Your task to perform on an android device: Open Chrome and go to the settings page Image 0: 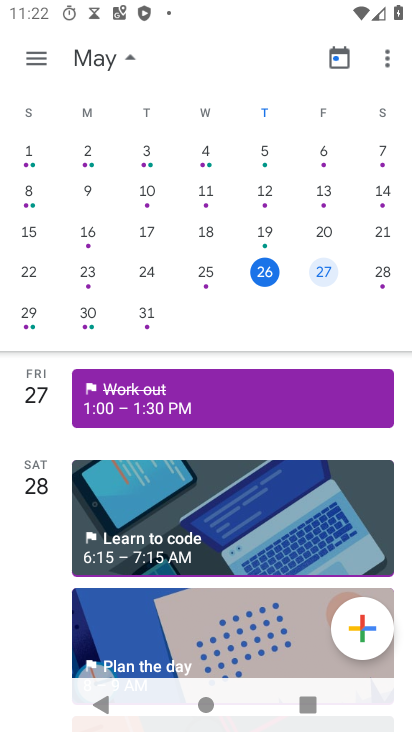
Step 0: press home button
Your task to perform on an android device: Open Chrome and go to the settings page Image 1: 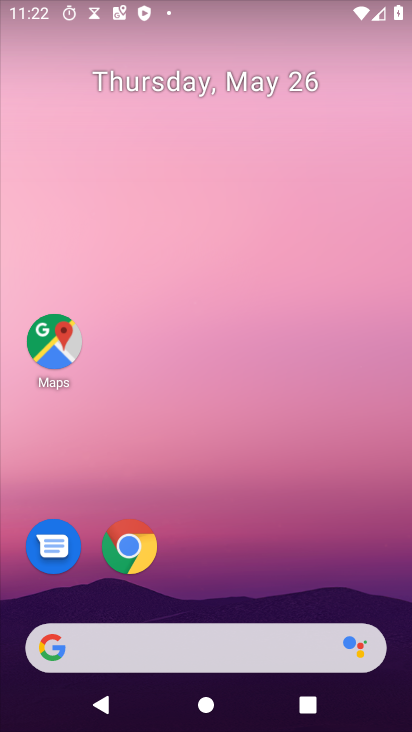
Step 1: drag from (340, 598) to (345, 95)
Your task to perform on an android device: Open Chrome and go to the settings page Image 2: 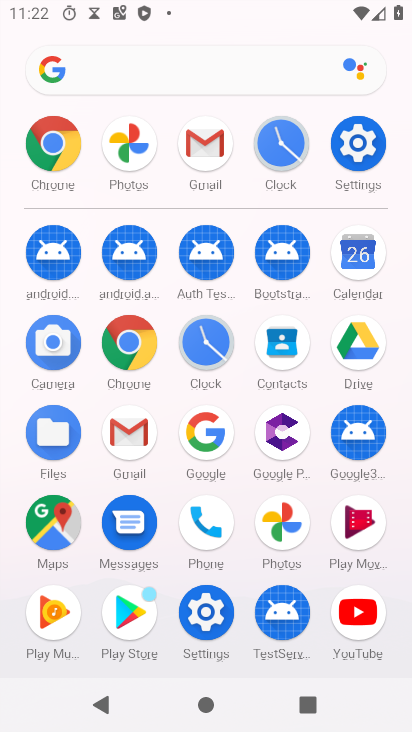
Step 2: click (142, 356)
Your task to perform on an android device: Open Chrome and go to the settings page Image 3: 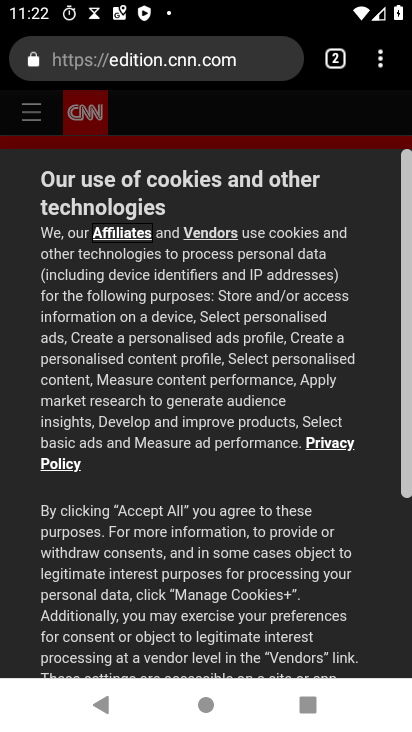
Step 3: task complete